Your task to perform on an android device: Open calendar and show me the fourth week of next month Image 0: 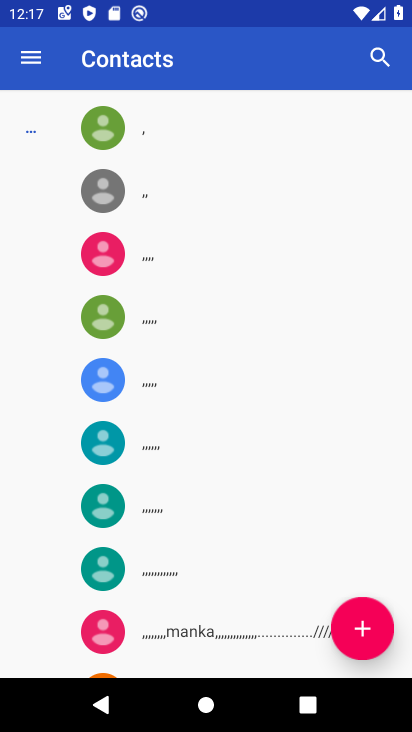
Step 0: press home button
Your task to perform on an android device: Open calendar and show me the fourth week of next month Image 1: 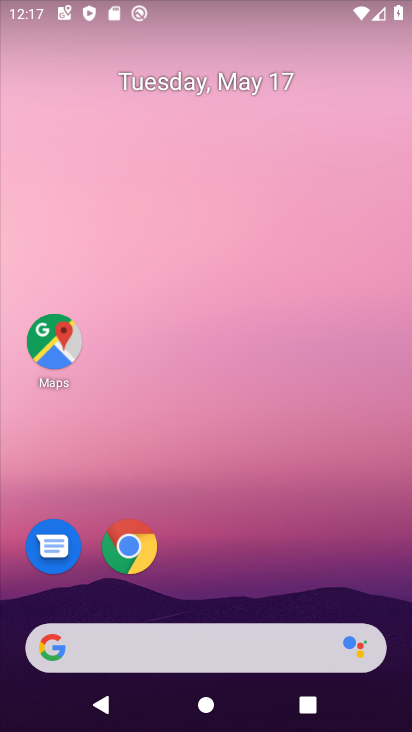
Step 1: drag from (385, 622) to (330, 42)
Your task to perform on an android device: Open calendar and show me the fourth week of next month Image 2: 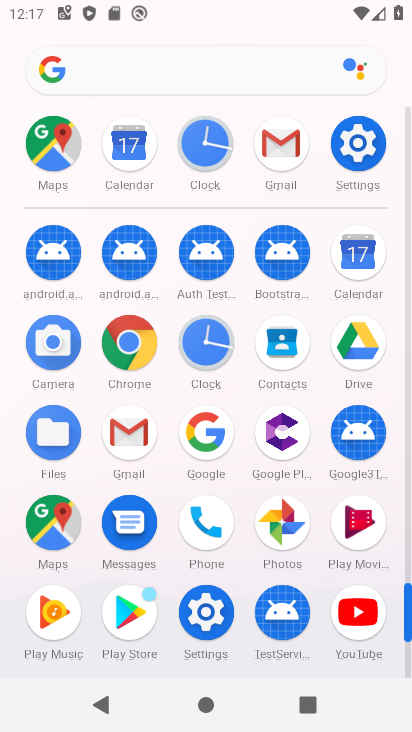
Step 2: click (409, 658)
Your task to perform on an android device: Open calendar and show me the fourth week of next month Image 3: 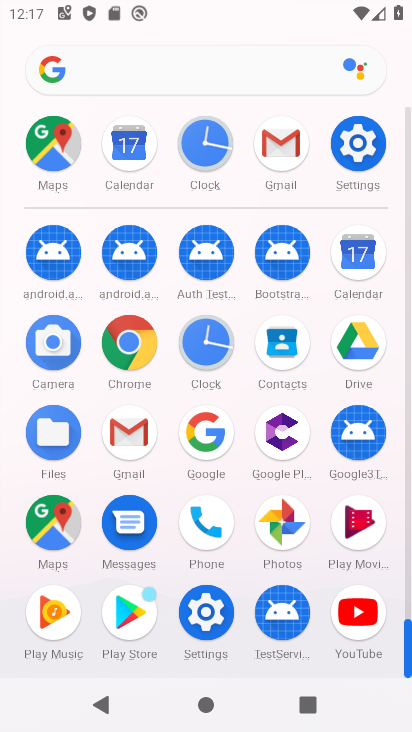
Step 3: click (351, 251)
Your task to perform on an android device: Open calendar and show me the fourth week of next month Image 4: 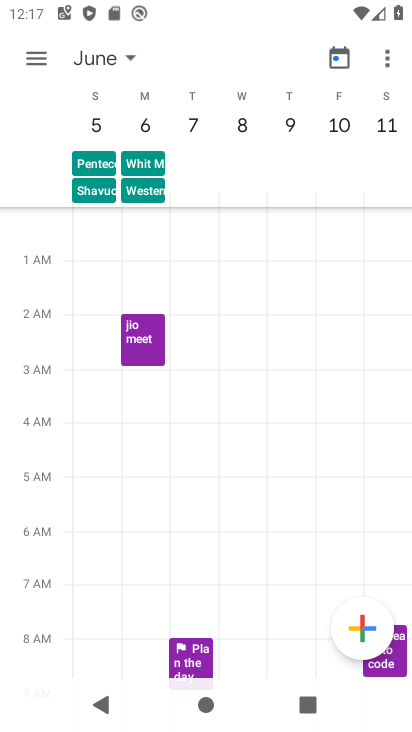
Step 4: click (125, 55)
Your task to perform on an android device: Open calendar and show me the fourth week of next month Image 5: 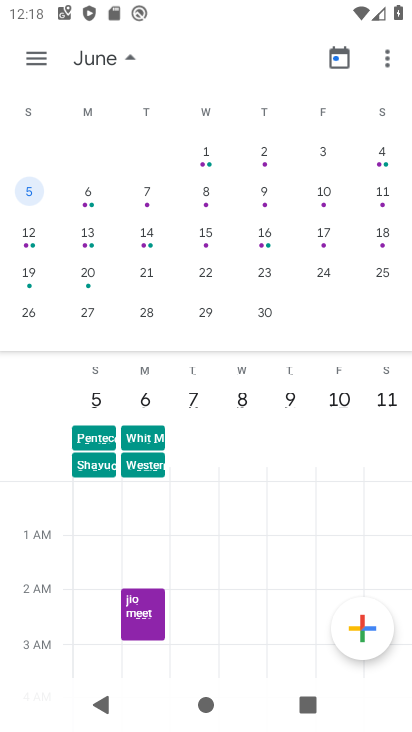
Step 5: click (31, 267)
Your task to perform on an android device: Open calendar and show me the fourth week of next month Image 6: 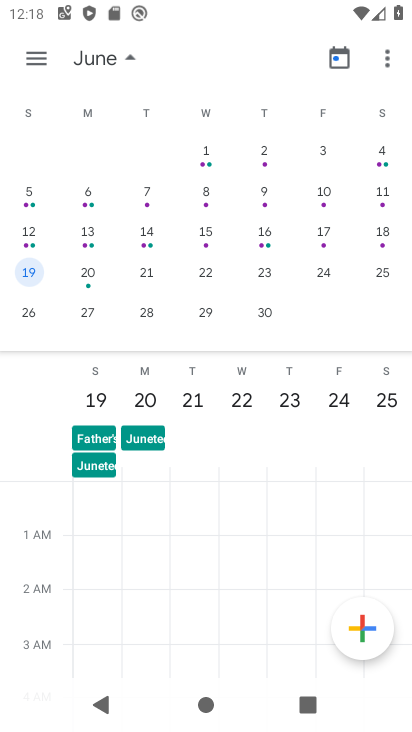
Step 6: task complete